Your task to perform on an android device: What's the weather? Image 0: 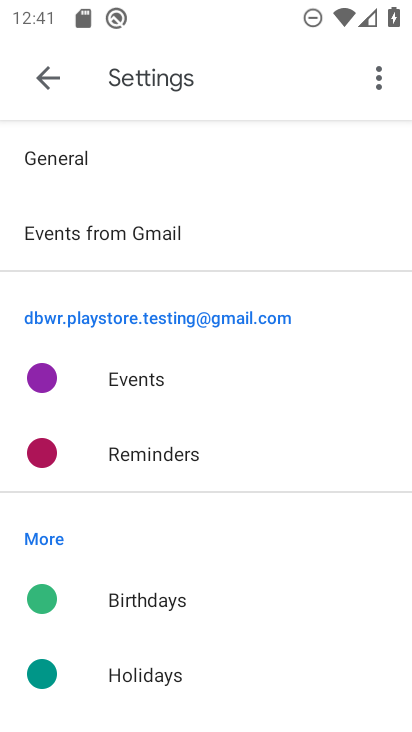
Step 0: press home button
Your task to perform on an android device: What's the weather? Image 1: 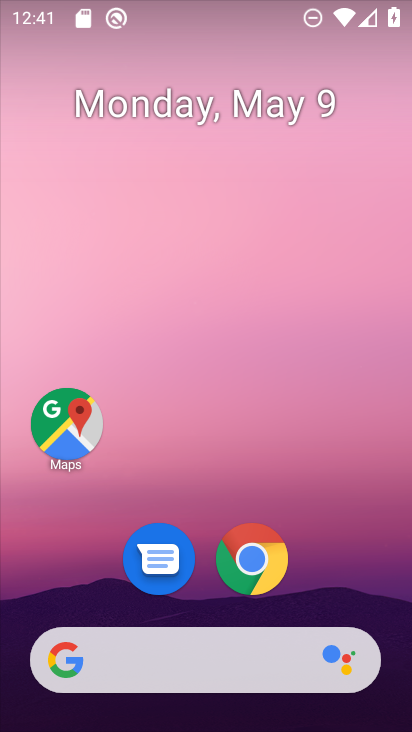
Step 1: drag from (369, 596) to (207, 201)
Your task to perform on an android device: What's the weather? Image 2: 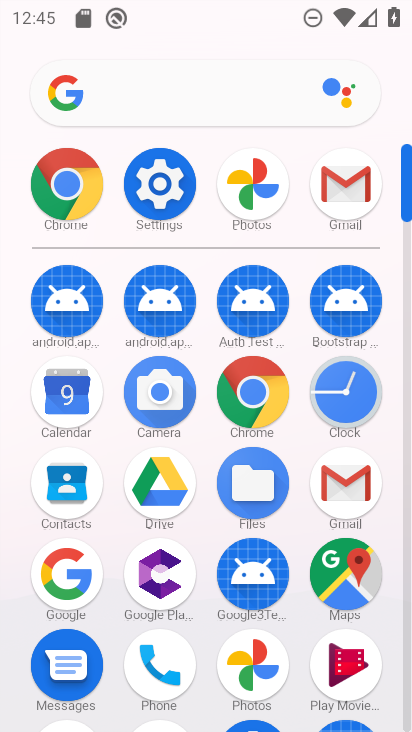
Step 2: click (64, 180)
Your task to perform on an android device: What's the weather? Image 3: 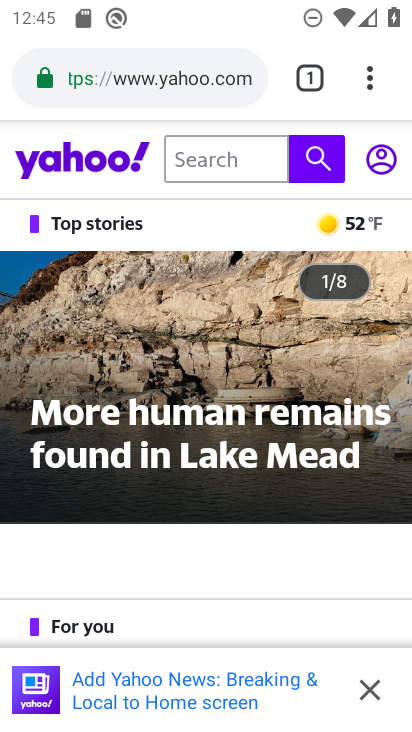
Step 3: click (180, 76)
Your task to perform on an android device: What's the weather? Image 4: 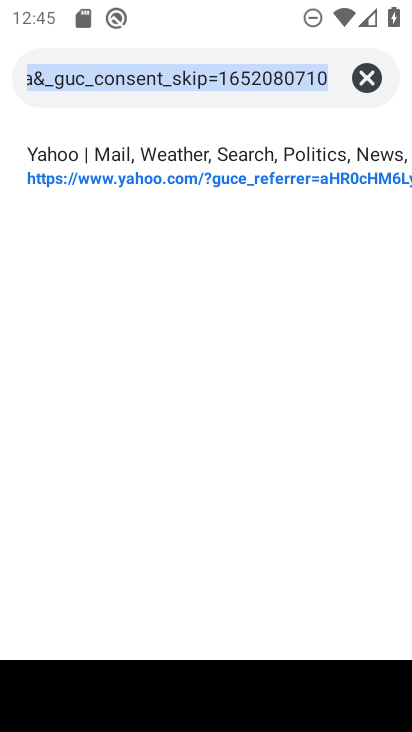
Step 4: click (374, 65)
Your task to perform on an android device: What's the weather? Image 5: 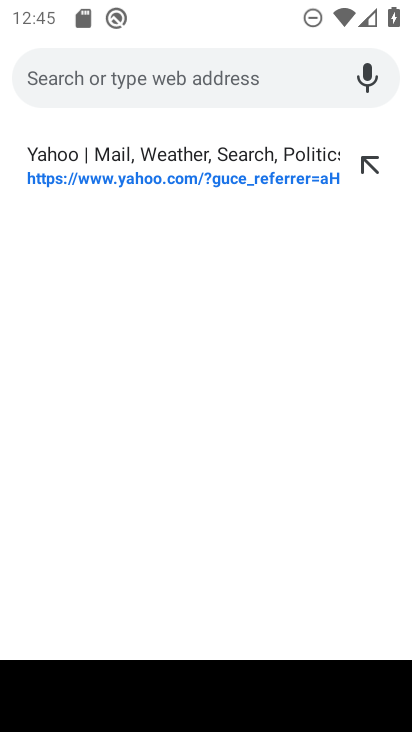
Step 5: click (356, 74)
Your task to perform on an android device: What's the weather? Image 6: 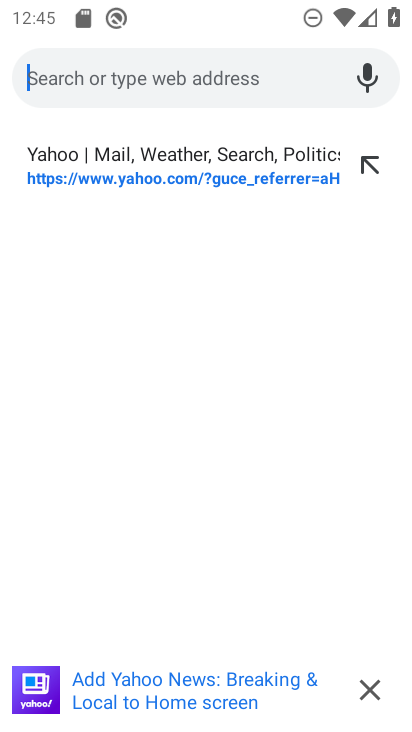
Step 6: click (328, 71)
Your task to perform on an android device: What's the weather? Image 7: 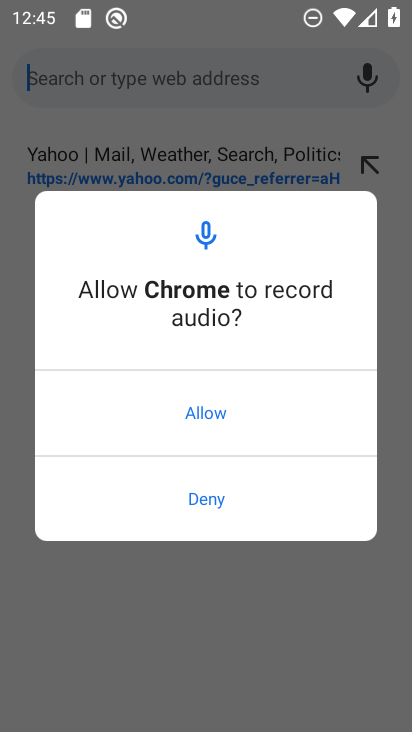
Step 7: click (311, 71)
Your task to perform on an android device: What's the weather? Image 8: 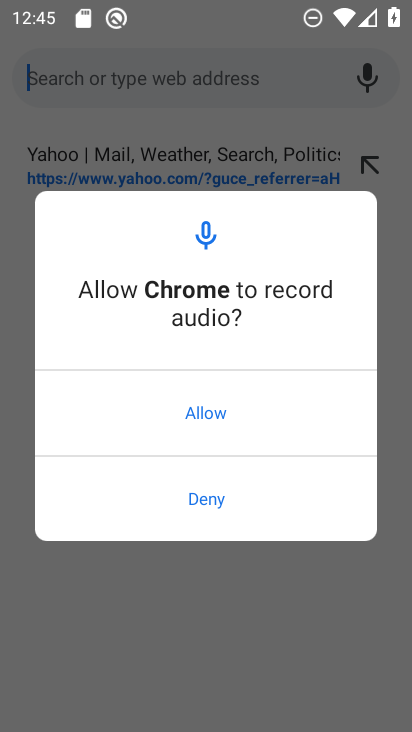
Step 8: click (190, 518)
Your task to perform on an android device: What's the weather? Image 9: 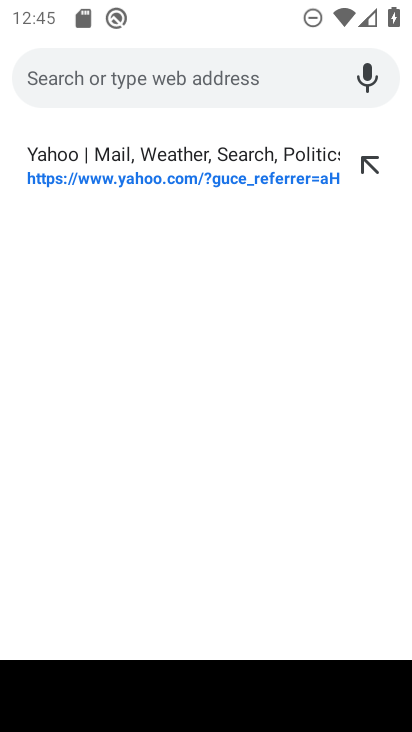
Step 9: type "What's the weather?"
Your task to perform on an android device: What's the weather? Image 10: 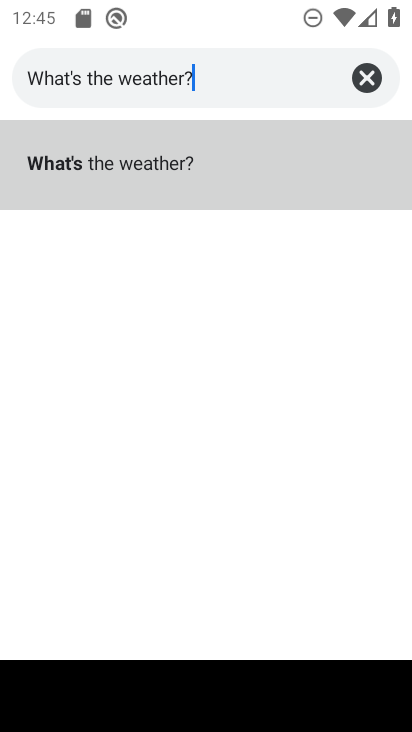
Step 10: click (146, 173)
Your task to perform on an android device: What's the weather? Image 11: 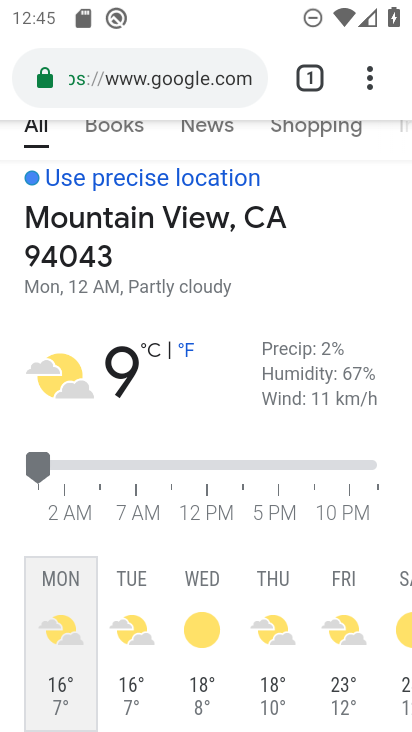
Step 11: task complete